Your task to perform on an android device: snooze an email in the gmail app Image 0: 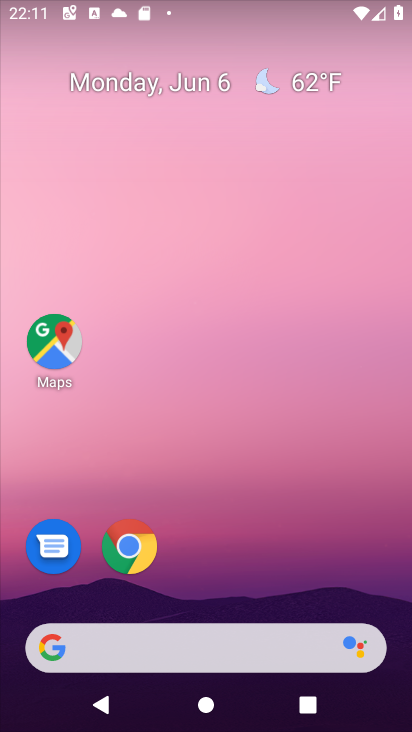
Step 0: drag from (394, 655) to (331, 55)
Your task to perform on an android device: snooze an email in the gmail app Image 1: 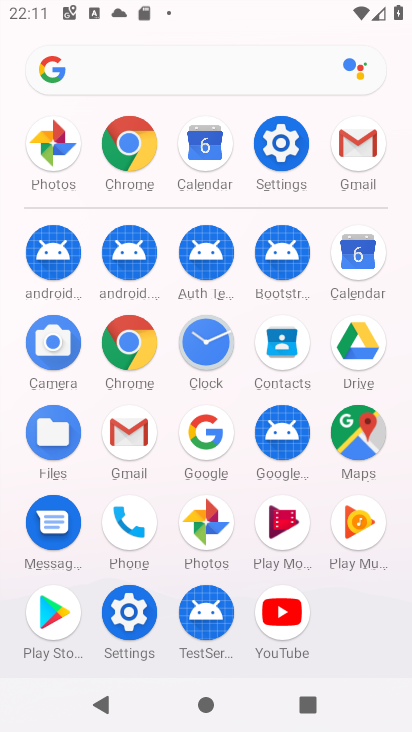
Step 1: click (131, 433)
Your task to perform on an android device: snooze an email in the gmail app Image 2: 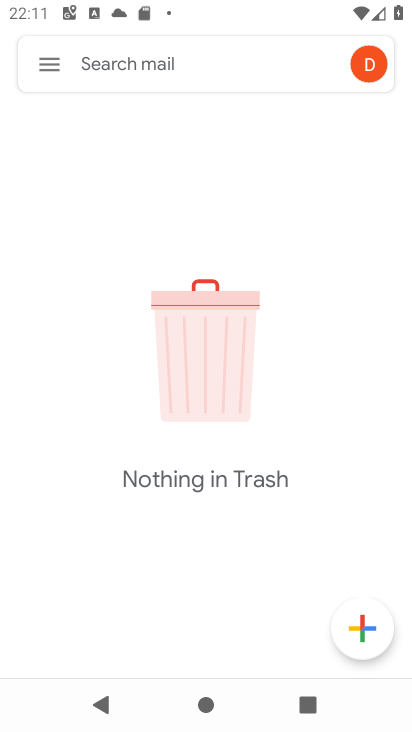
Step 2: click (49, 63)
Your task to perform on an android device: snooze an email in the gmail app Image 3: 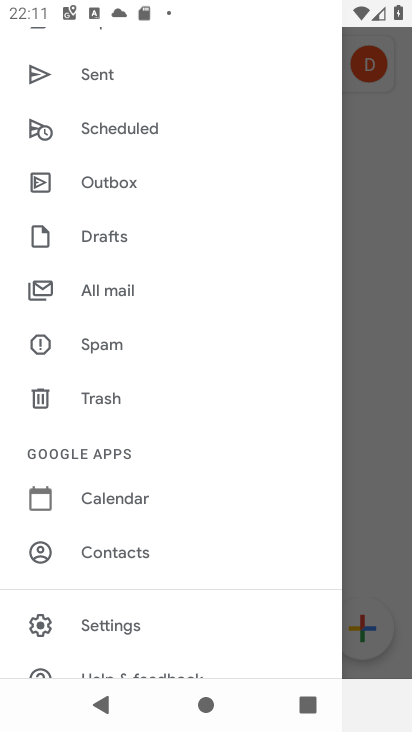
Step 3: drag from (184, 249) to (169, 338)
Your task to perform on an android device: snooze an email in the gmail app Image 4: 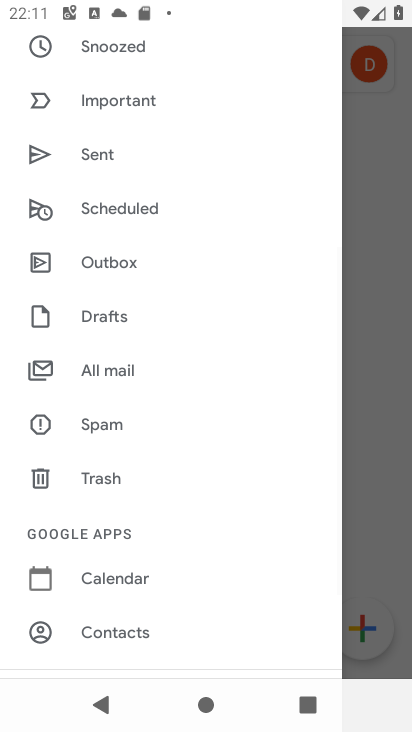
Step 4: click (109, 369)
Your task to perform on an android device: snooze an email in the gmail app Image 5: 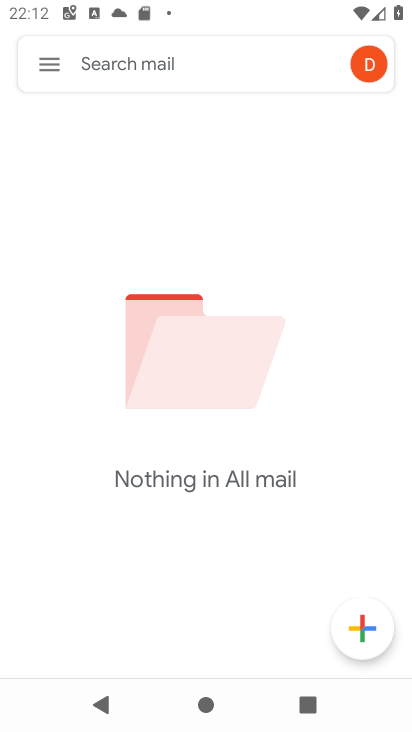
Step 5: task complete